Your task to perform on an android device: Open Reddit.com Image 0: 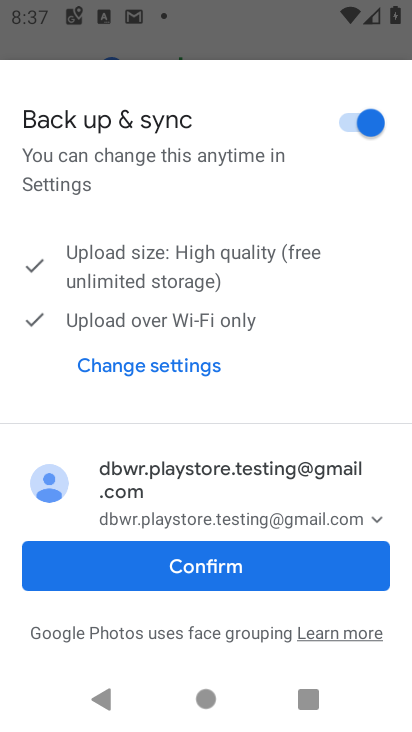
Step 0: click (272, 581)
Your task to perform on an android device: Open Reddit.com Image 1: 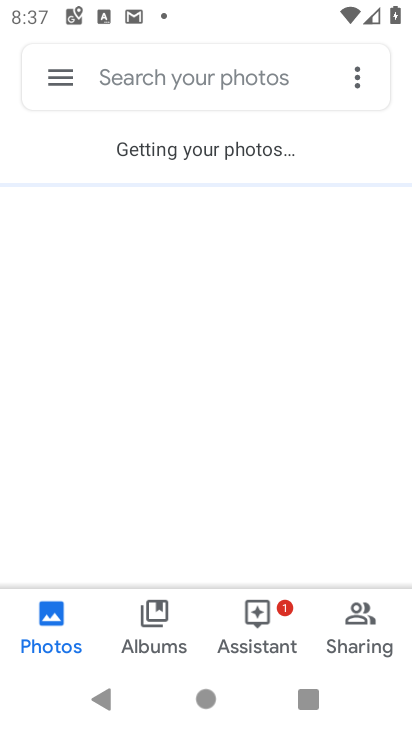
Step 1: press home button
Your task to perform on an android device: Open Reddit.com Image 2: 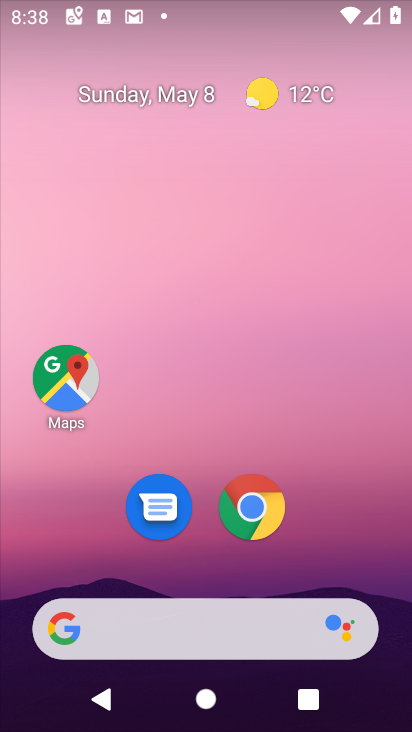
Step 2: click (190, 634)
Your task to perform on an android device: Open Reddit.com Image 3: 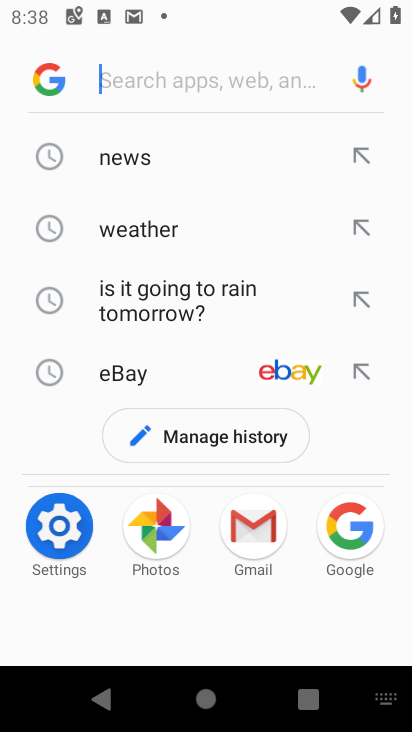
Step 3: type "reddit.com"
Your task to perform on an android device: Open Reddit.com Image 4: 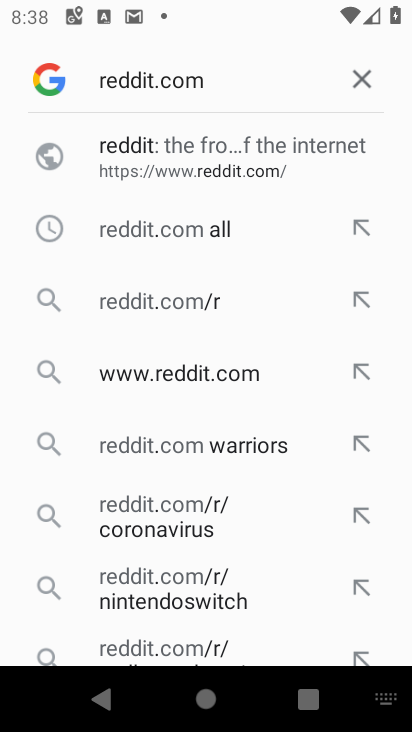
Step 4: click (310, 147)
Your task to perform on an android device: Open Reddit.com Image 5: 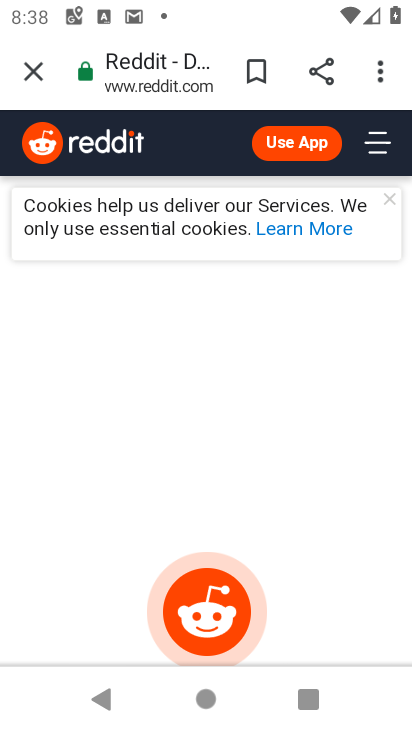
Step 5: task complete